Your task to perform on an android device: toggle javascript in the chrome app Image 0: 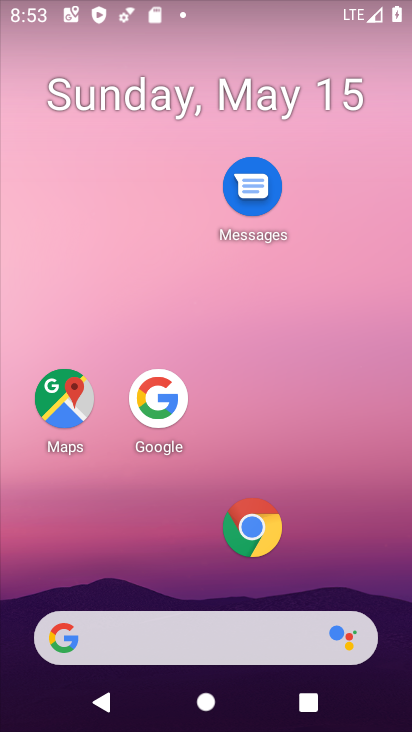
Step 0: press home button
Your task to perform on an android device: toggle javascript in the chrome app Image 1: 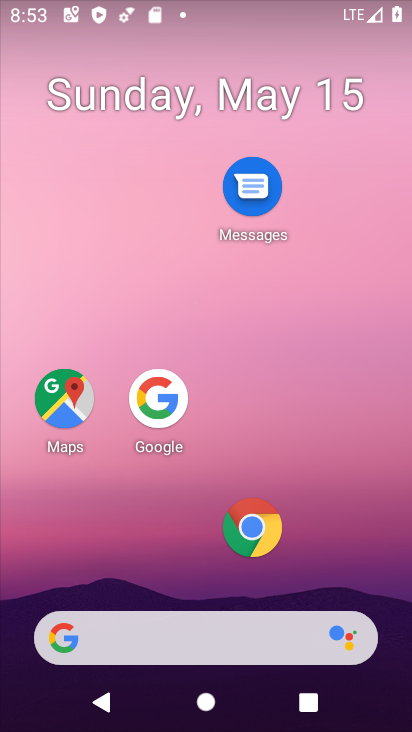
Step 1: click (248, 541)
Your task to perform on an android device: toggle javascript in the chrome app Image 2: 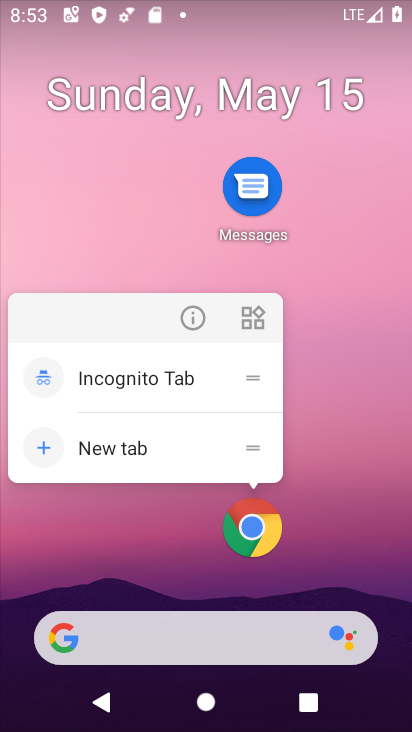
Step 2: click (248, 539)
Your task to perform on an android device: toggle javascript in the chrome app Image 3: 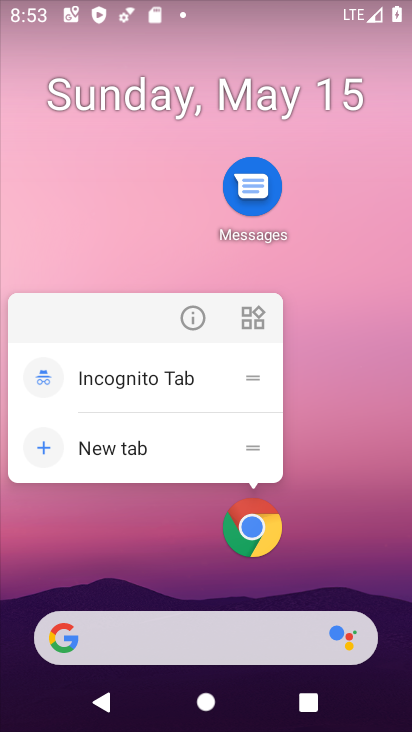
Step 3: click (247, 539)
Your task to perform on an android device: toggle javascript in the chrome app Image 4: 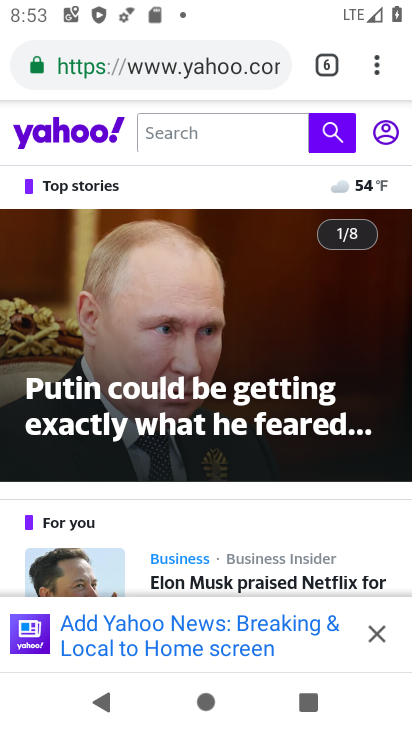
Step 4: drag from (378, 73) to (202, 593)
Your task to perform on an android device: toggle javascript in the chrome app Image 5: 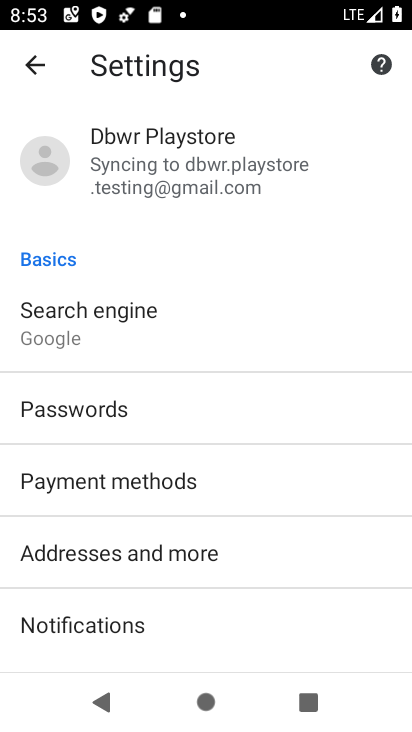
Step 5: drag from (162, 617) to (332, 155)
Your task to perform on an android device: toggle javascript in the chrome app Image 6: 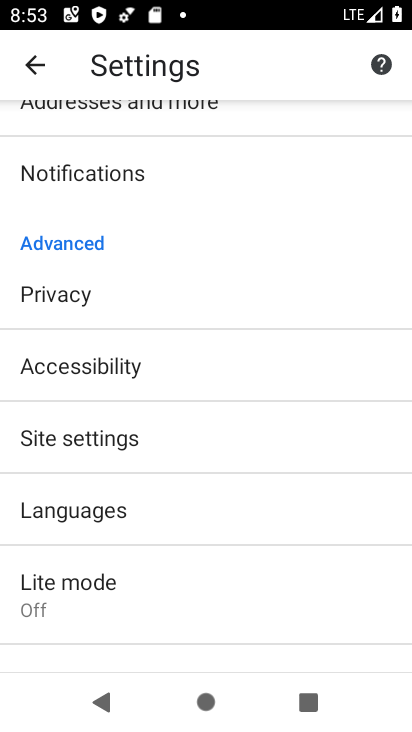
Step 6: click (88, 439)
Your task to perform on an android device: toggle javascript in the chrome app Image 7: 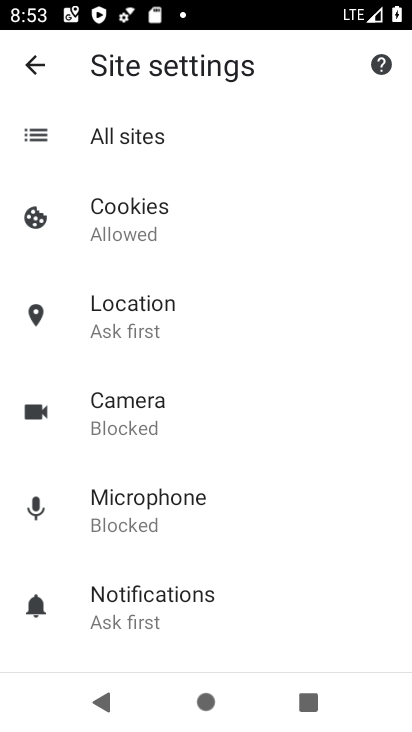
Step 7: drag from (217, 578) to (299, 215)
Your task to perform on an android device: toggle javascript in the chrome app Image 8: 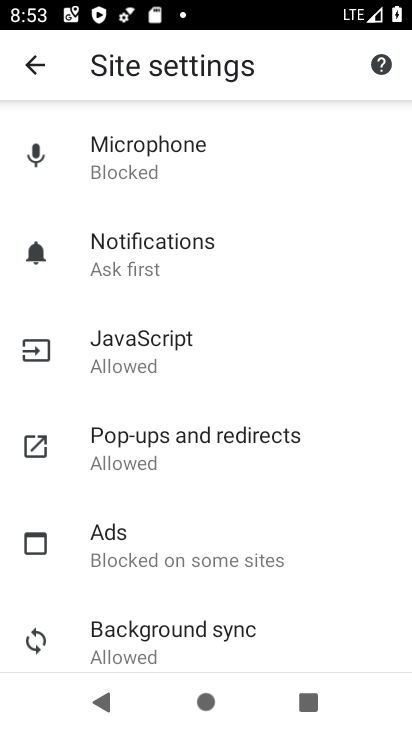
Step 8: click (158, 350)
Your task to perform on an android device: toggle javascript in the chrome app Image 9: 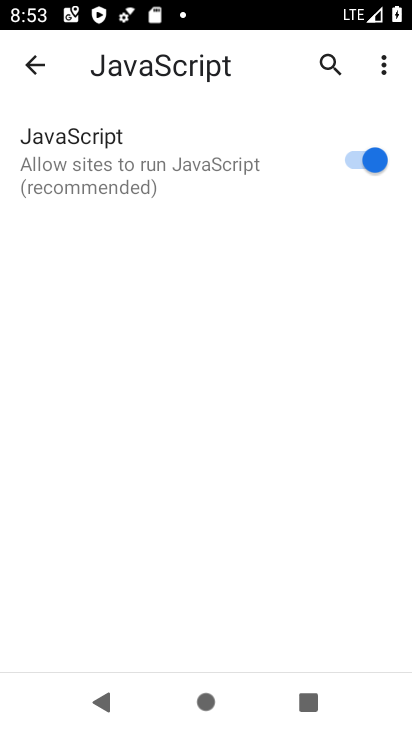
Step 9: click (364, 159)
Your task to perform on an android device: toggle javascript in the chrome app Image 10: 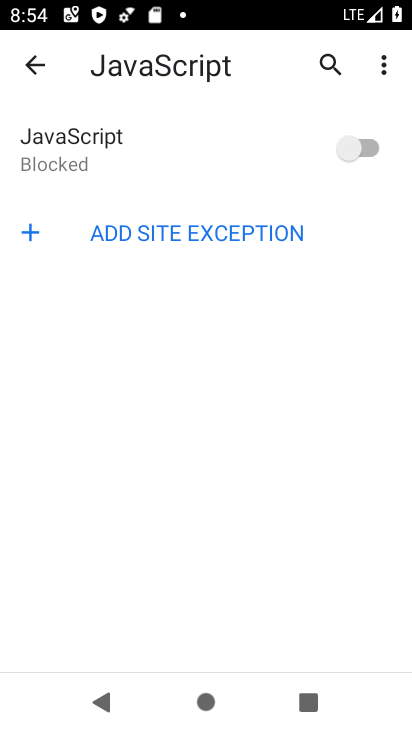
Step 10: task complete